Your task to perform on an android device: Open the stopwatch Image 0: 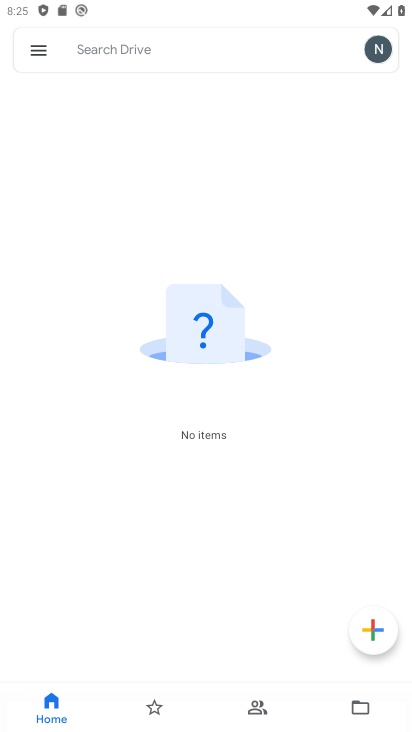
Step 0: press home button
Your task to perform on an android device: Open the stopwatch Image 1: 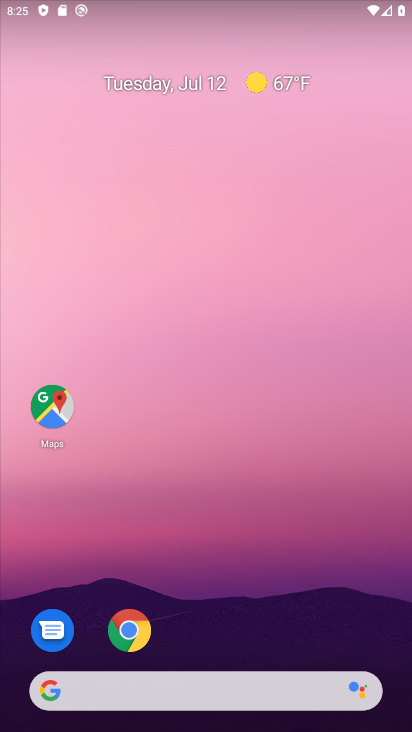
Step 1: drag from (251, 644) to (167, 181)
Your task to perform on an android device: Open the stopwatch Image 2: 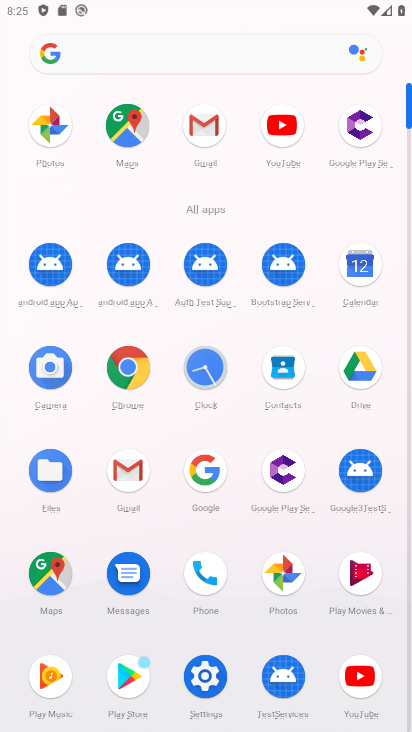
Step 2: click (213, 368)
Your task to perform on an android device: Open the stopwatch Image 3: 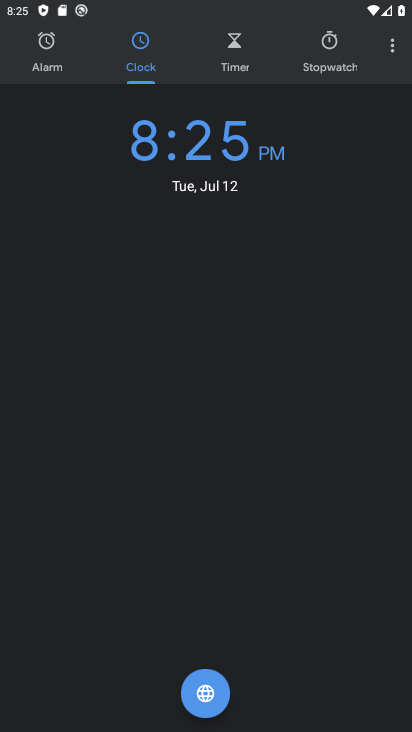
Step 3: click (343, 49)
Your task to perform on an android device: Open the stopwatch Image 4: 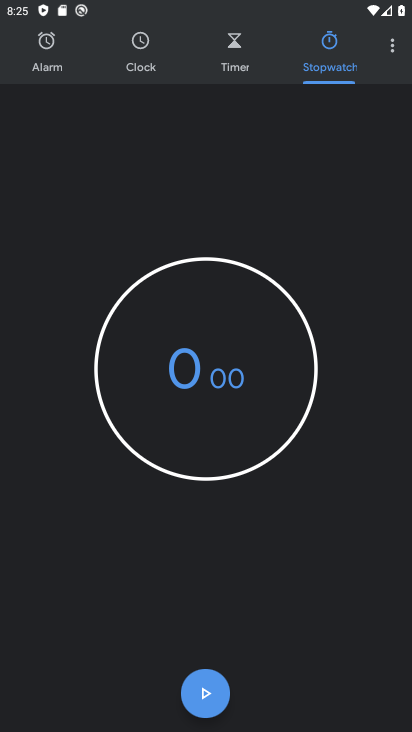
Step 4: task complete